Your task to perform on an android device: change timer sound Image 0: 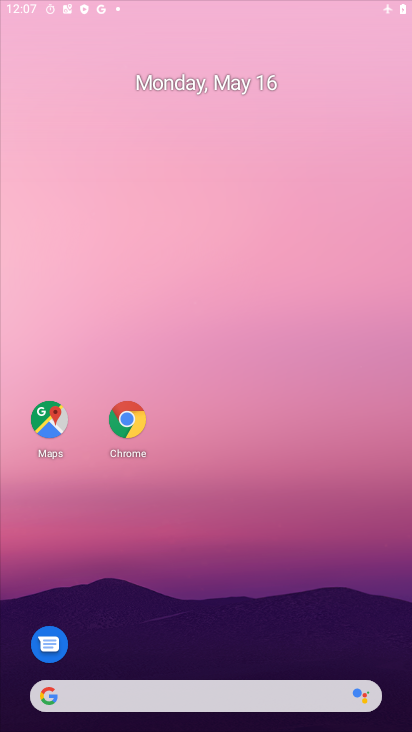
Step 0: drag from (200, 385) to (224, 18)
Your task to perform on an android device: change timer sound Image 1: 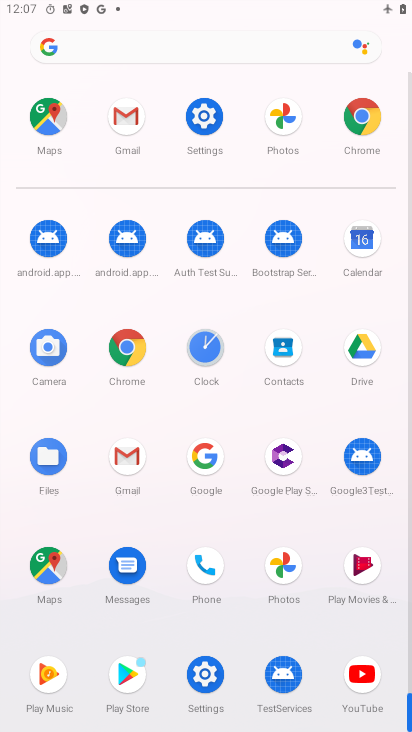
Step 1: click (201, 347)
Your task to perform on an android device: change timer sound Image 2: 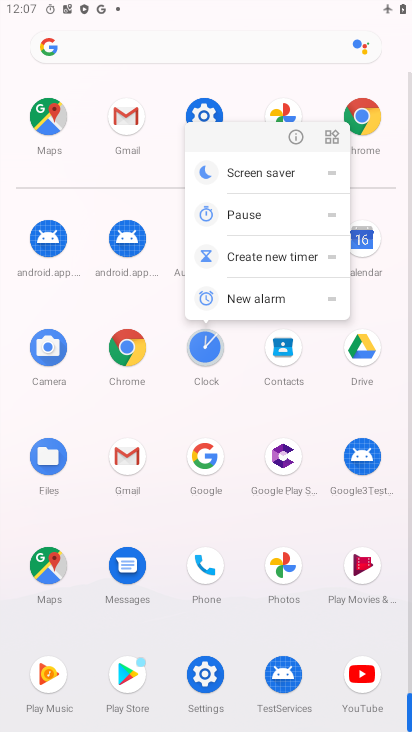
Step 2: click (296, 140)
Your task to perform on an android device: change timer sound Image 3: 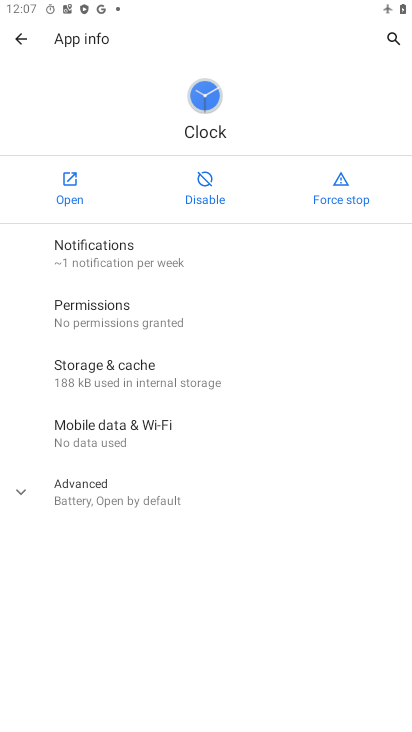
Step 3: click (90, 190)
Your task to perform on an android device: change timer sound Image 4: 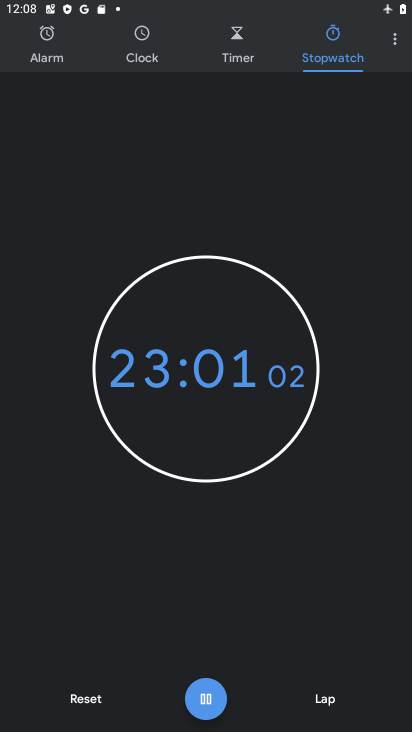
Step 4: click (404, 43)
Your task to perform on an android device: change timer sound Image 5: 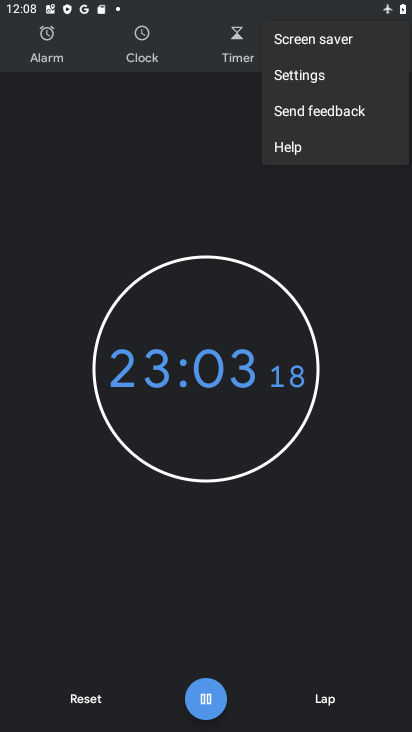
Step 5: click (309, 69)
Your task to perform on an android device: change timer sound Image 6: 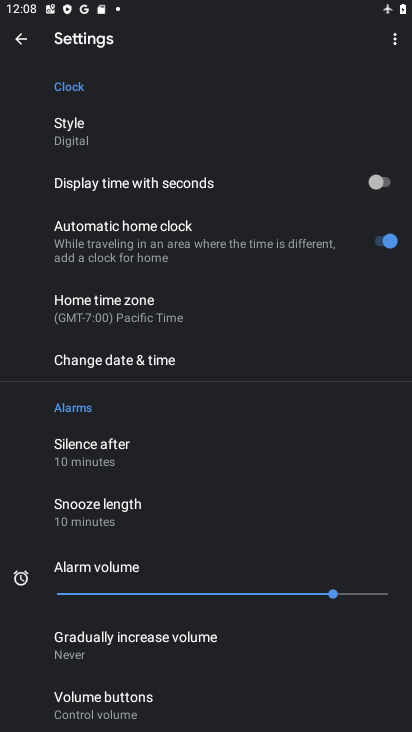
Step 6: drag from (236, 685) to (337, 154)
Your task to perform on an android device: change timer sound Image 7: 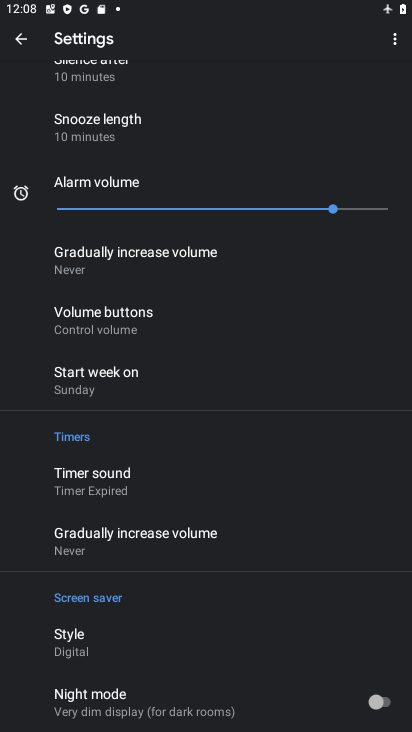
Step 7: click (163, 476)
Your task to perform on an android device: change timer sound Image 8: 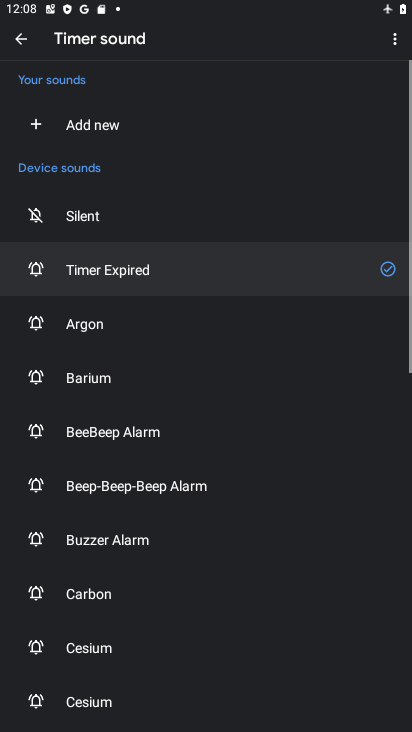
Step 8: click (185, 392)
Your task to perform on an android device: change timer sound Image 9: 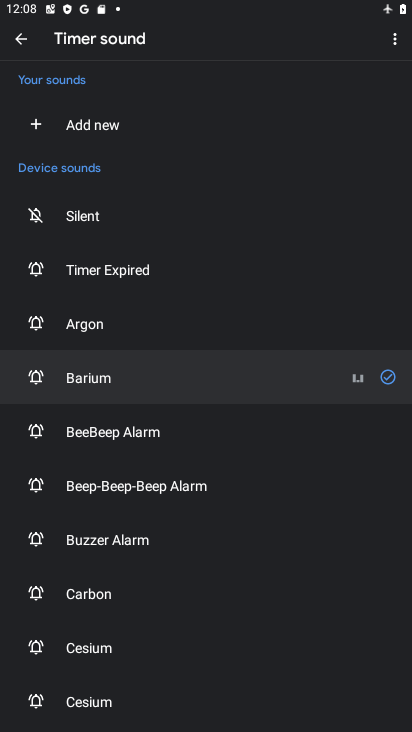
Step 9: task complete